Your task to perform on an android device: Open the calendar and show me this week's events? Image 0: 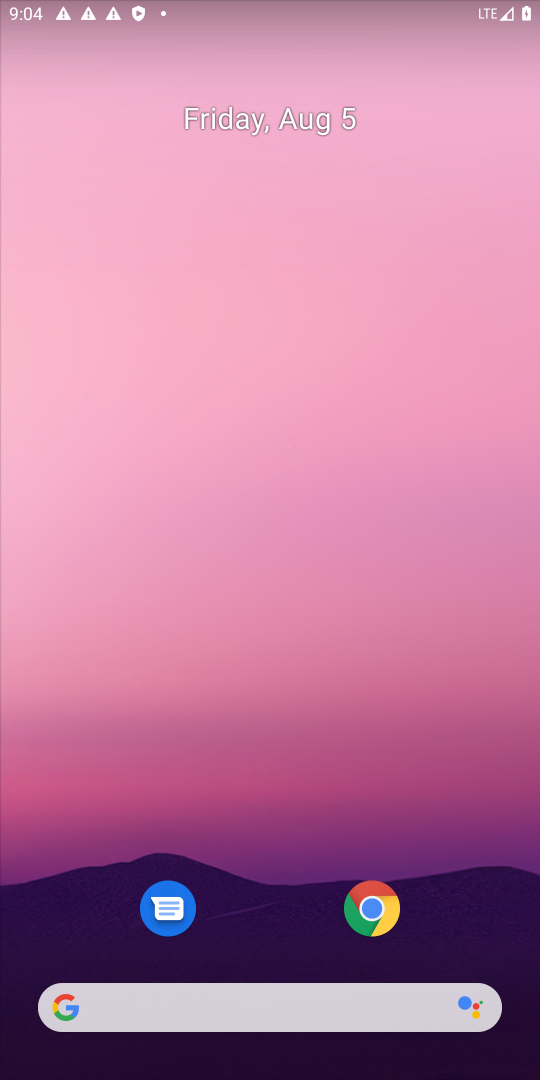
Step 0: drag from (269, 688) to (258, 144)
Your task to perform on an android device: Open the calendar and show me this week's events? Image 1: 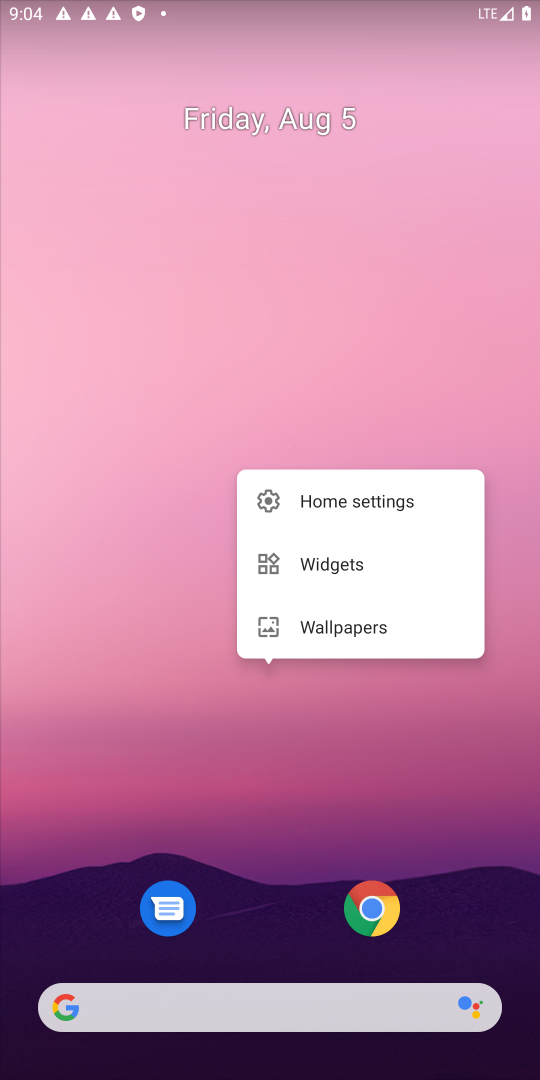
Step 1: drag from (257, 740) to (116, 291)
Your task to perform on an android device: Open the calendar and show me this week's events? Image 2: 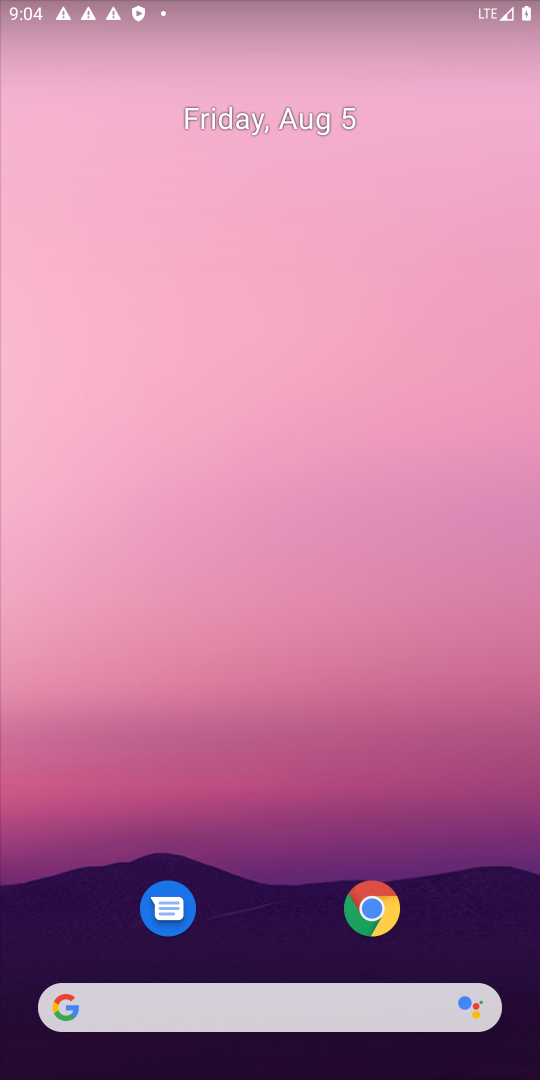
Step 2: drag from (276, 623) to (249, 233)
Your task to perform on an android device: Open the calendar and show me this week's events? Image 3: 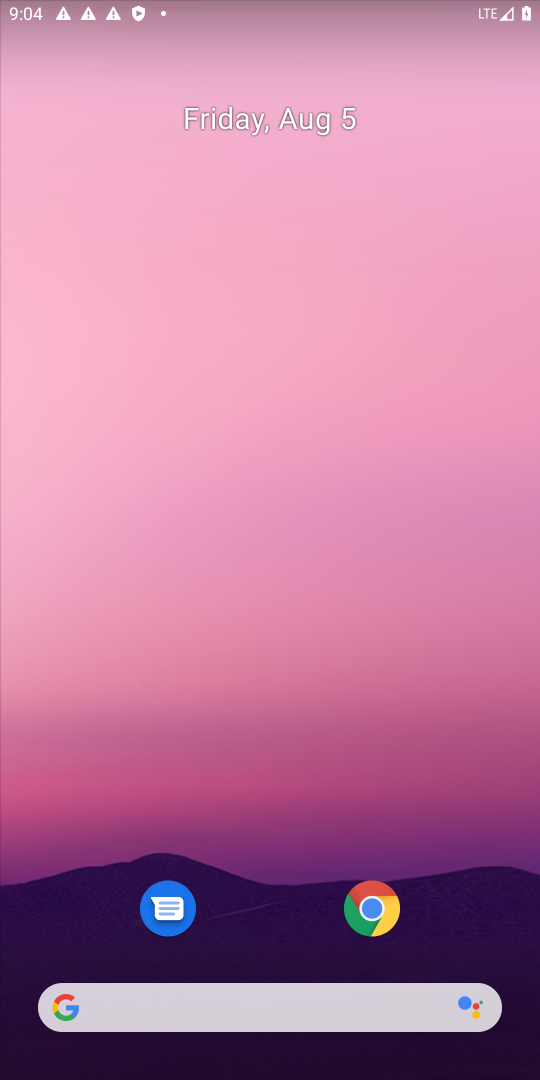
Step 3: drag from (284, 966) to (321, 18)
Your task to perform on an android device: Open the calendar and show me this week's events? Image 4: 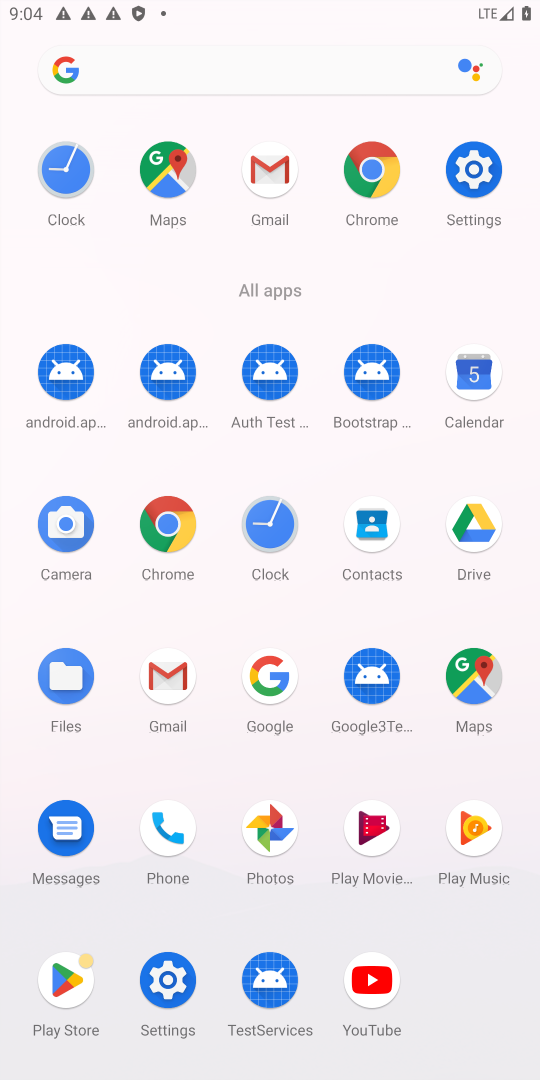
Step 4: click (470, 380)
Your task to perform on an android device: Open the calendar and show me this week's events? Image 5: 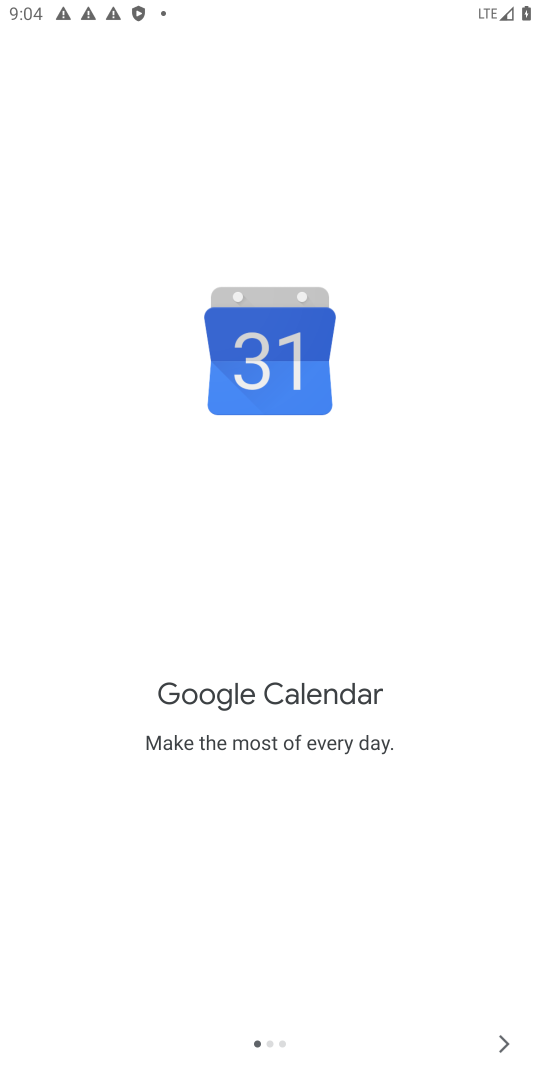
Step 5: click (498, 1045)
Your task to perform on an android device: Open the calendar and show me this week's events? Image 6: 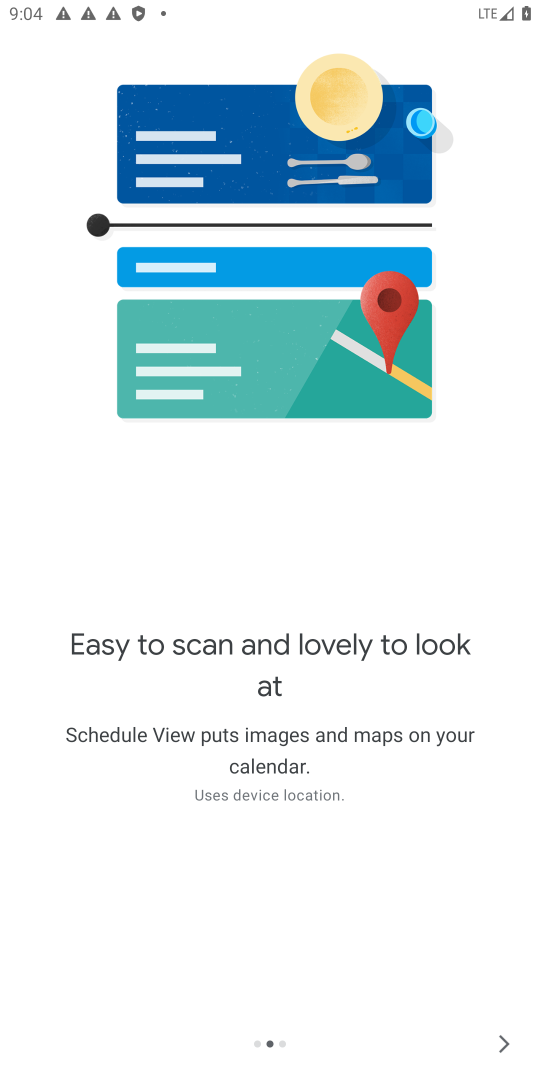
Step 6: click (498, 1045)
Your task to perform on an android device: Open the calendar and show me this week's events? Image 7: 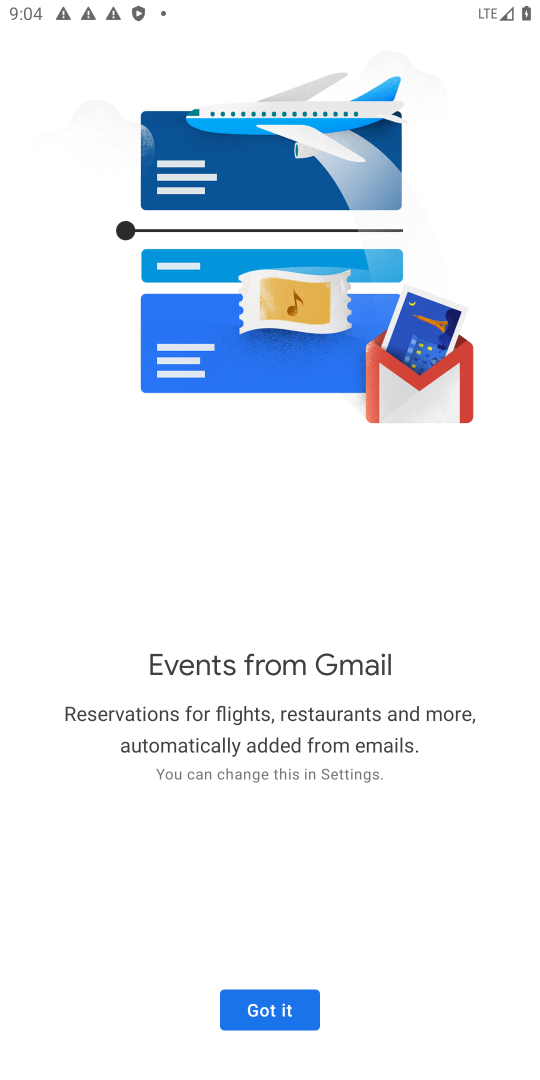
Step 7: click (290, 1007)
Your task to perform on an android device: Open the calendar and show me this week's events? Image 8: 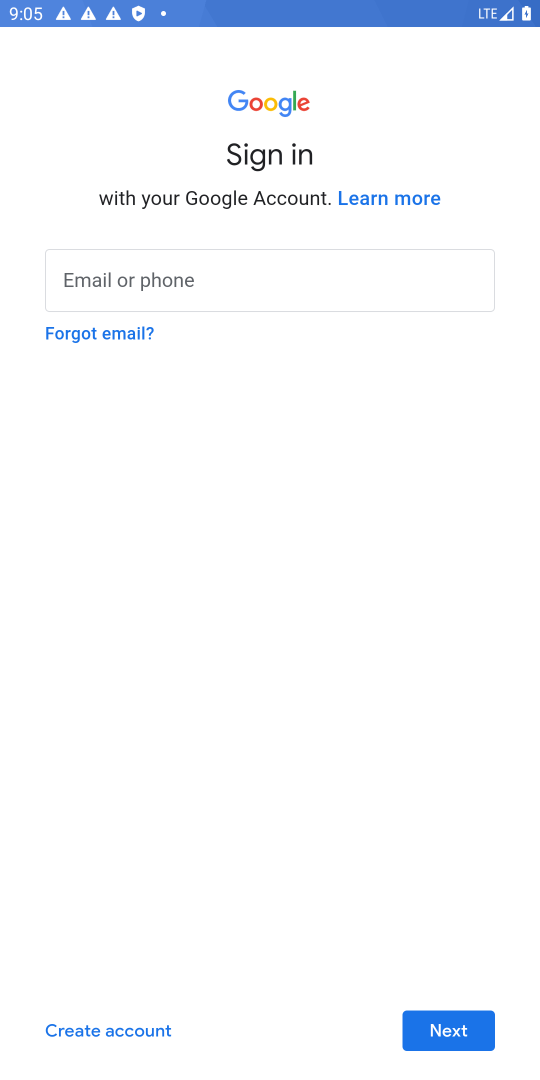
Step 8: task complete